Your task to perform on an android device: open chrome and create a bookmark for the current page Image 0: 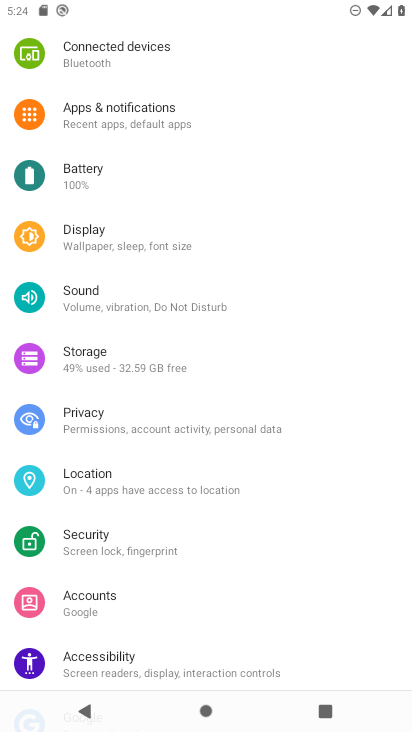
Step 0: press home button
Your task to perform on an android device: open chrome and create a bookmark for the current page Image 1: 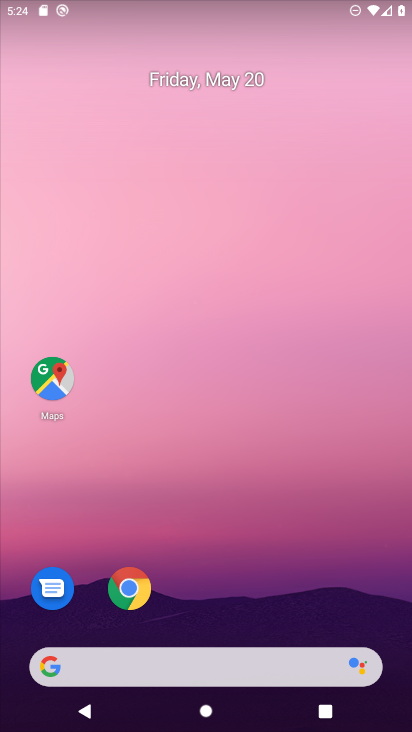
Step 1: click (130, 591)
Your task to perform on an android device: open chrome and create a bookmark for the current page Image 2: 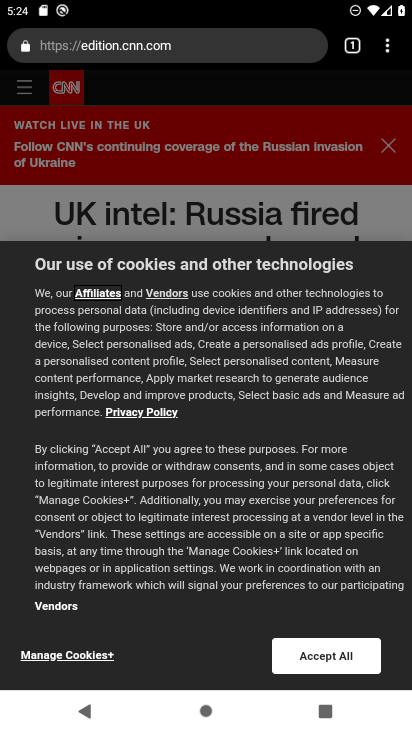
Step 2: click (388, 52)
Your task to perform on an android device: open chrome and create a bookmark for the current page Image 3: 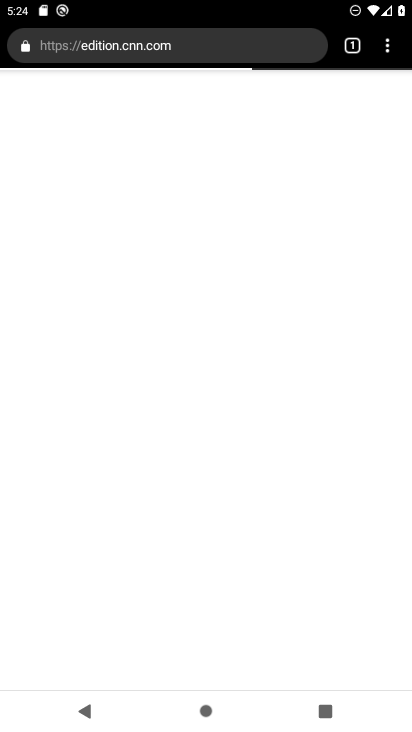
Step 3: click (391, 45)
Your task to perform on an android device: open chrome and create a bookmark for the current page Image 4: 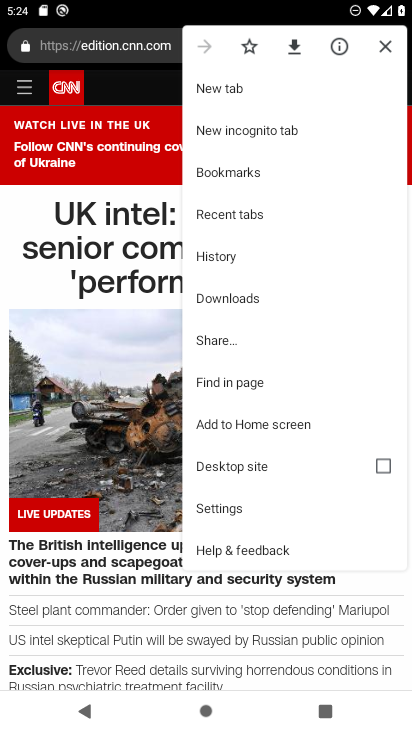
Step 4: click (257, 46)
Your task to perform on an android device: open chrome and create a bookmark for the current page Image 5: 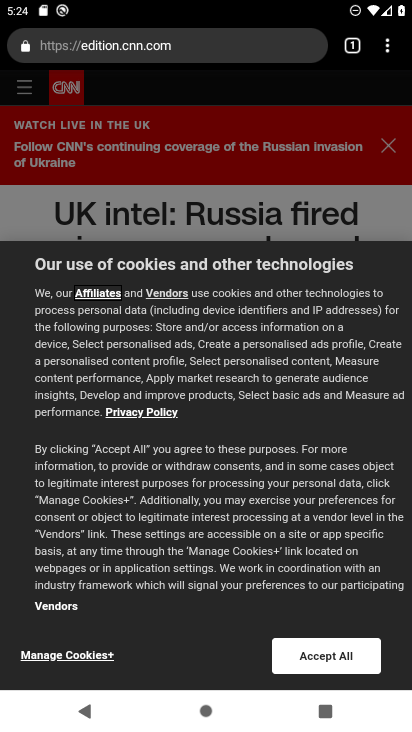
Step 5: click (387, 48)
Your task to perform on an android device: open chrome and create a bookmark for the current page Image 6: 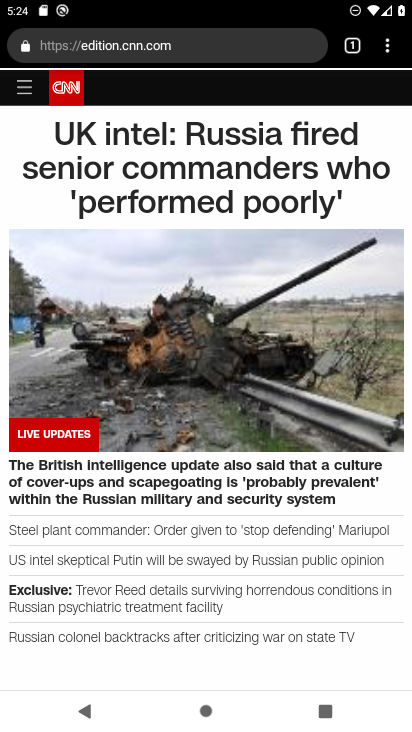
Step 6: click (387, 48)
Your task to perform on an android device: open chrome and create a bookmark for the current page Image 7: 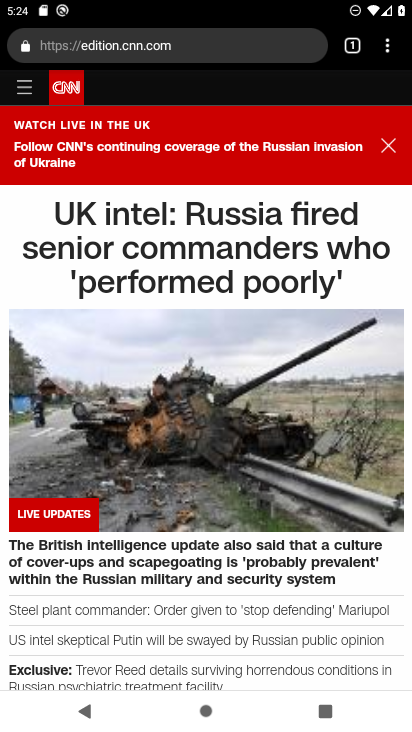
Step 7: click (391, 44)
Your task to perform on an android device: open chrome and create a bookmark for the current page Image 8: 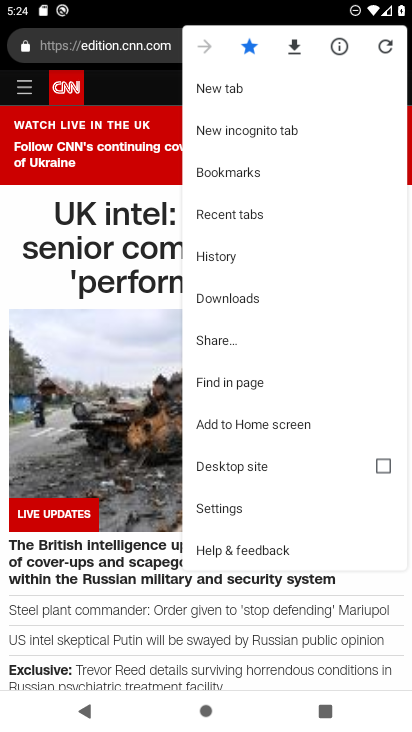
Step 8: task complete